Your task to perform on an android device: Go to notification settings Image 0: 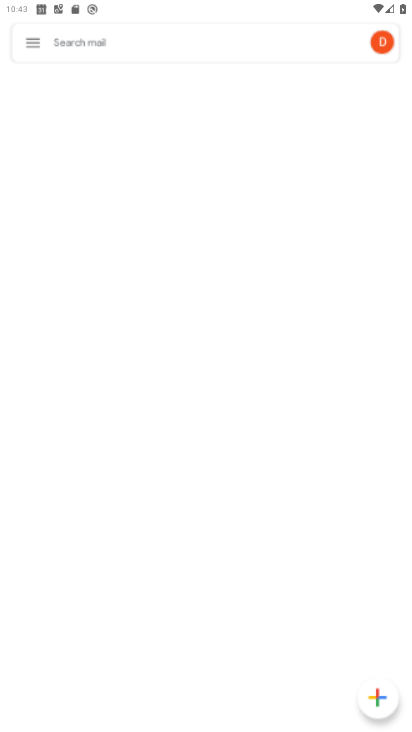
Step 0: drag from (236, 716) to (283, 342)
Your task to perform on an android device: Go to notification settings Image 1: 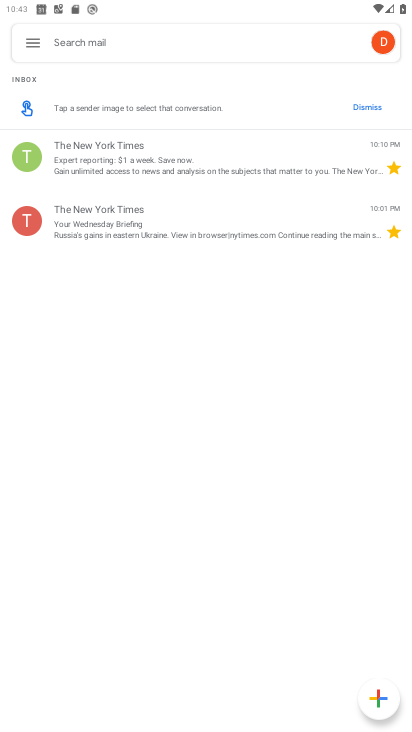
Step 1: press home button
Your task to perform on an android device: Go to notification settings Image 2: 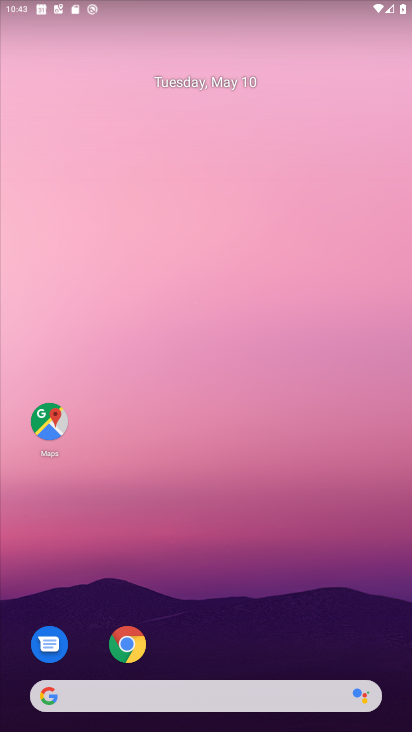
Step 2: drag from (271, 586) to (347, 67)
Your task to perform on an android device: Go to notification settings Image 3: 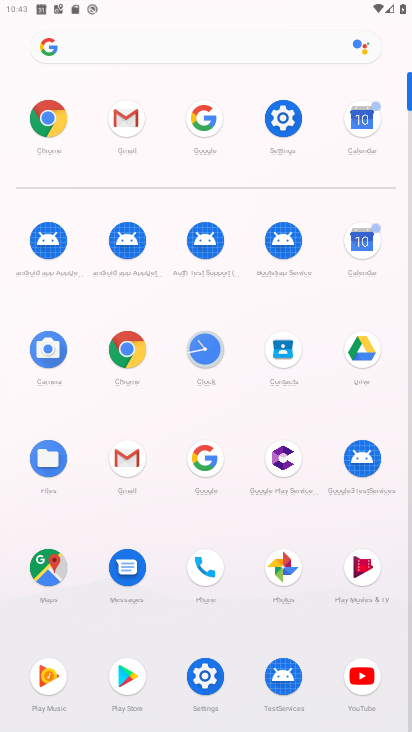
Step 3: click (277, 146)
Your task to perform on an android device: Go to notification settings Image 4: 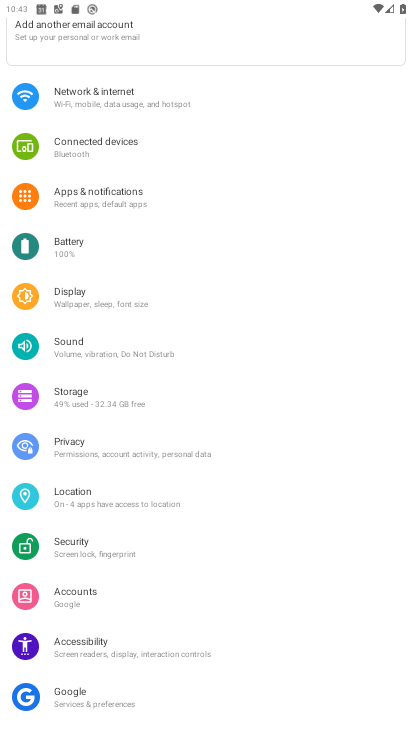
Step 4: click (208, 209)
Your task to perform on an android device: Go to notification settings Image 5: 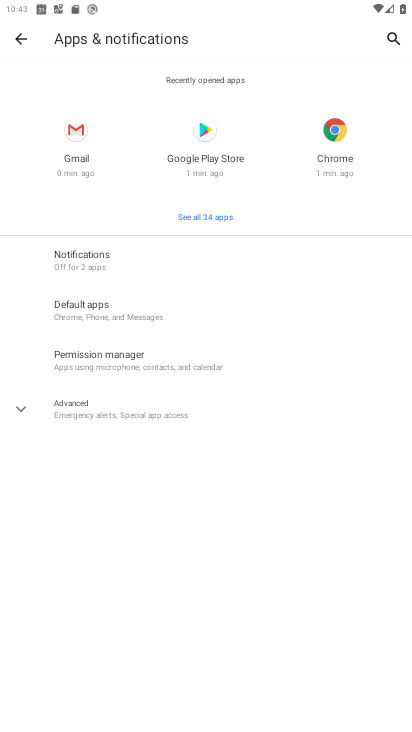
Step 5: click (170, 261)
Your task to perform on an android device: Go to notification settings Image 6: 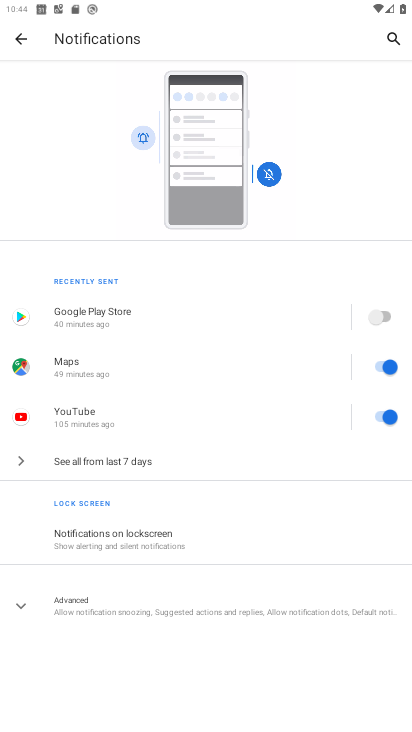
Step 6: task complete